Your task to perform on an android device: uninstall "ColorNote Notepad Notes" Image 0: 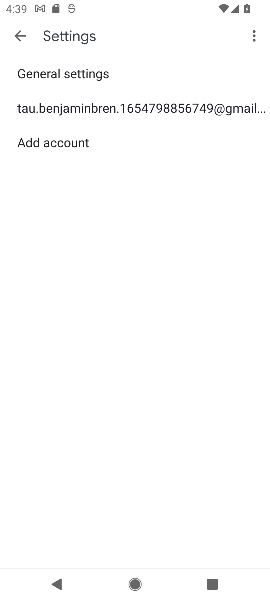
Step 0: press home button
Your task to perform on an android device: uninstall "ColorNote Notepad Notes" Image 1: 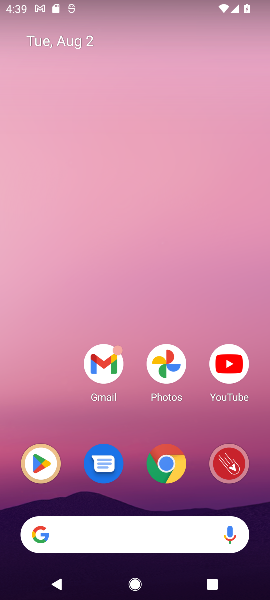
Step 1: click (40, 463)
Your task to perform on an android device: uninstall "ColorNote Notepad Notes" Image 2: 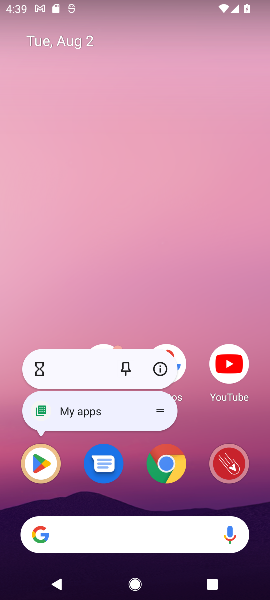
Step 2: click (40, 463)
Your task to perform on an android device: uninstall "ColorNote Notepad Notes" Image 3: 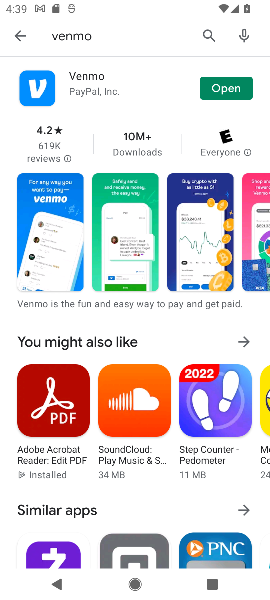
Step 3: click (207, 32)
Your task to perform on an android device: uninstall "ColorNote Notepad Notes" Image 4: 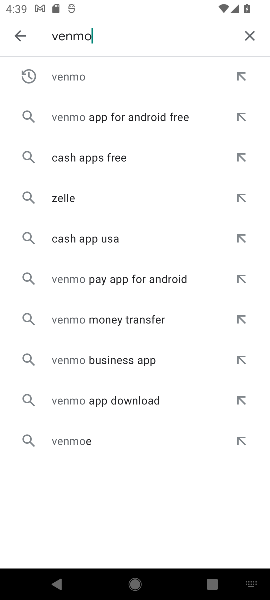
Step 4: click (241, 31)
Your task to perform on an android device: uninstall "ColorNote Notepad Notes" Image 5: 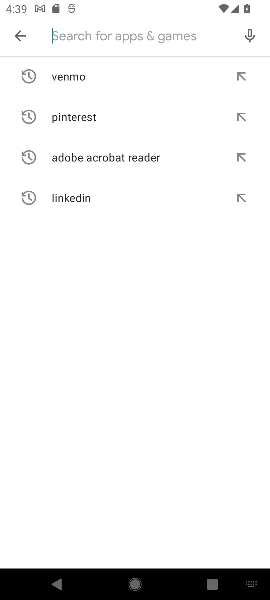
Step 5: type "ColorNote Notepad Notes"
Your task to perform on an android device: uninstall "ColorNote Notepad Notes" Image 6: 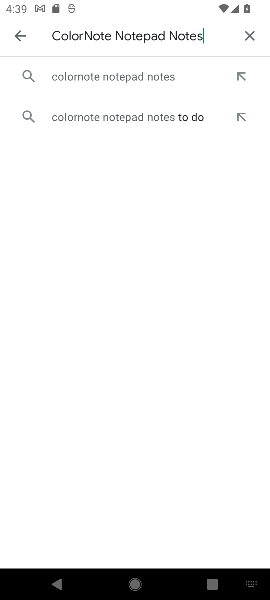
Step 6: click (101, 72)
Your task to perform on an android device: uninstall "ColorNote Notepad Notes" Image 7: 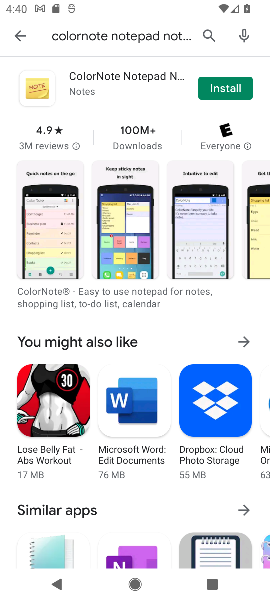
Step 7: task complete